Your task to perform on an android device: Search for Mexican restaurants on Maps Image 0: 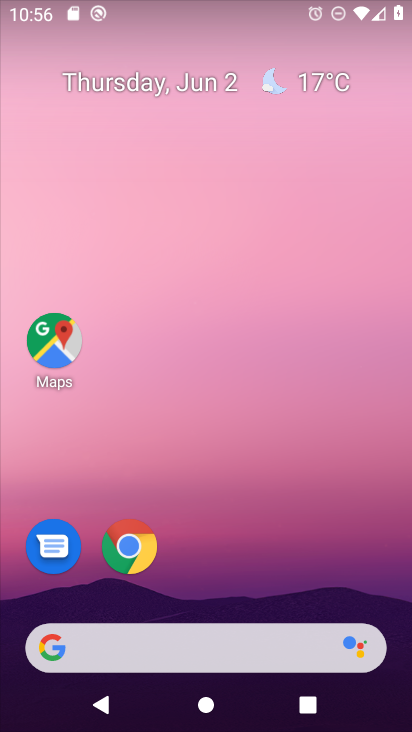
Step 0: drag from (218, 545) to (160, 30)
Your task to perform on an android device: Search for Mexican restaurants on Maps Image 1: 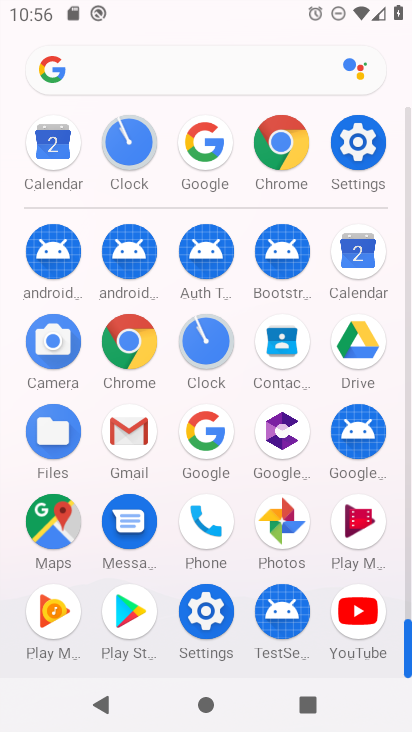
Step 1: drag from (6, 489) to (8, 257)
Your task to perform on an android device: Search for Mexican restaurants on Maps Image 2: 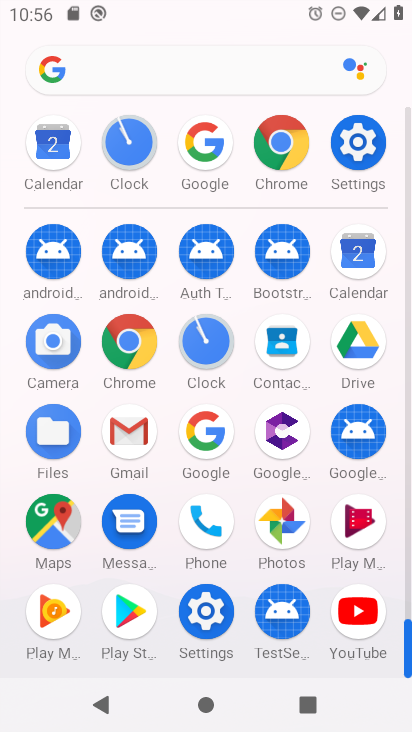
Step 2: click (53, 519)
Your task to perform on an android device: Search for Mexican restaurants on Maps Image 3: 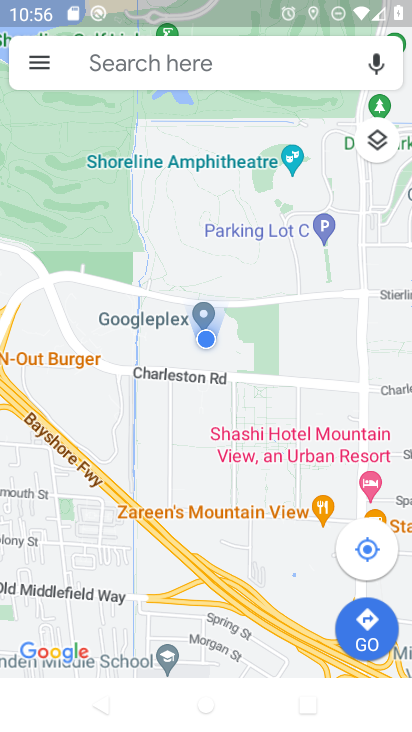
Step 3: click (244, 57)
Your task to perform on an android device: Search for Mexican restaurants on Maps Image 4: 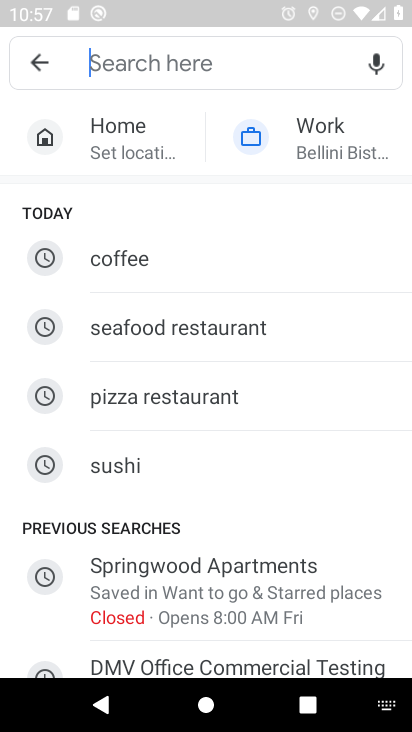
Step 4: type "Mexican restaurants "
Your task to perform on an android device: Search for Mexican restaurants on Maps Image 5: 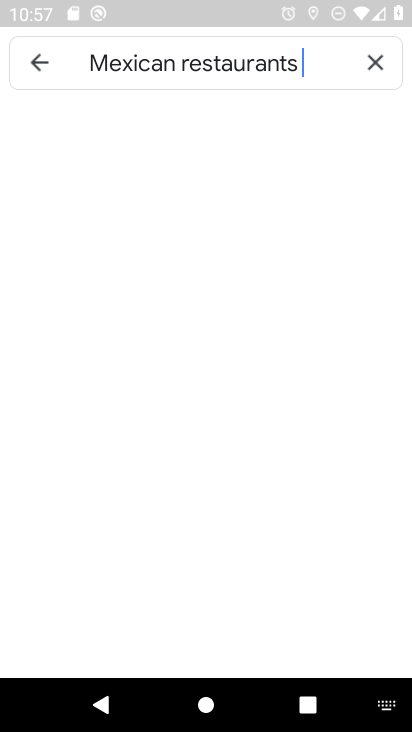
Step 5: type ""
Your task to perform on an android device: Search for Mexican restaurants on Maps Image 6: 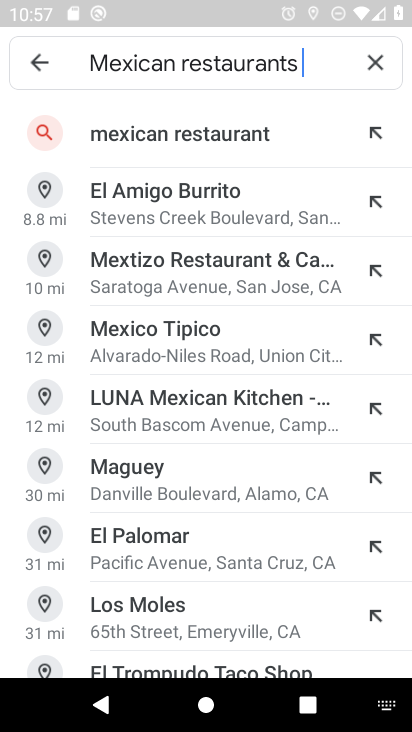
Step 6: click (156, 130)
Your task to perform on an android device: Search for Mexican restaurants on Maps Image 7: 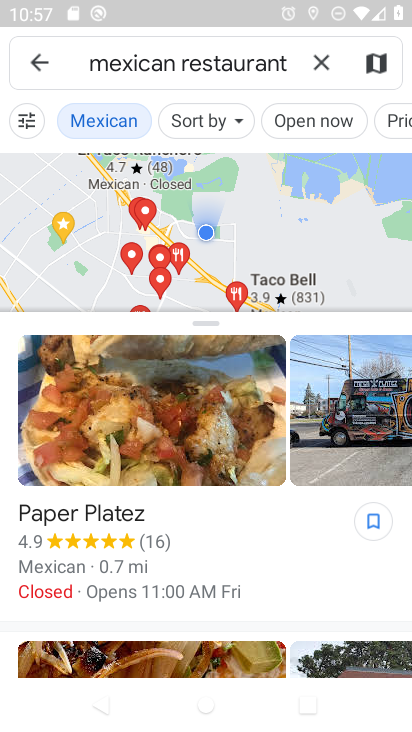
Step 7: task complete